Your task to perform on an android device: Open Maps and search for coffee Image 0: 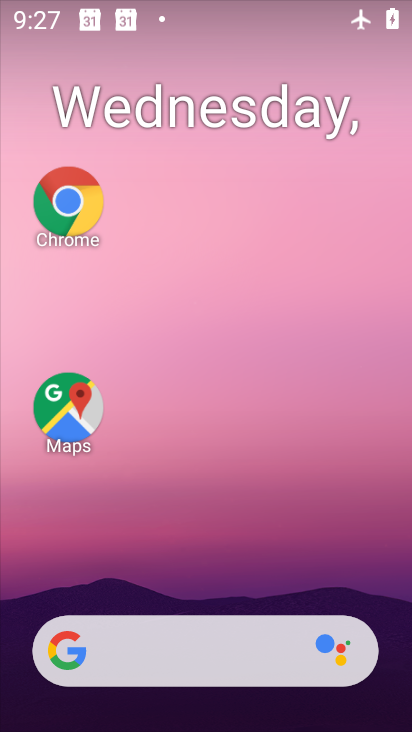
Step 0: click (83, 414)
Your task to perform on an android device: Open Maps and search for coffee Image 1: 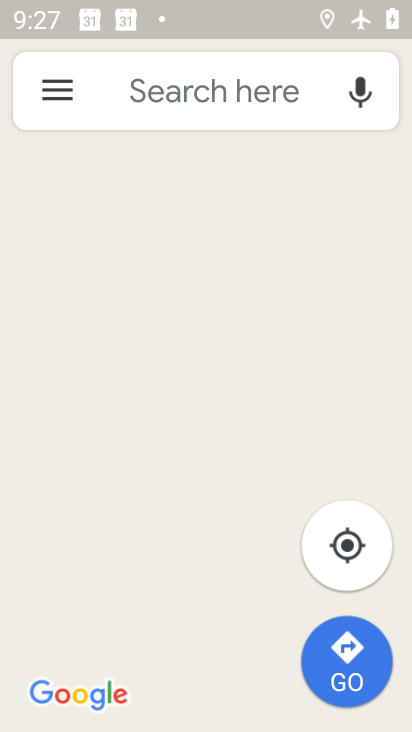
Step 1: click (165, 118)
Your task to perform on an android device: Open Maps and search for coffee Image 2: 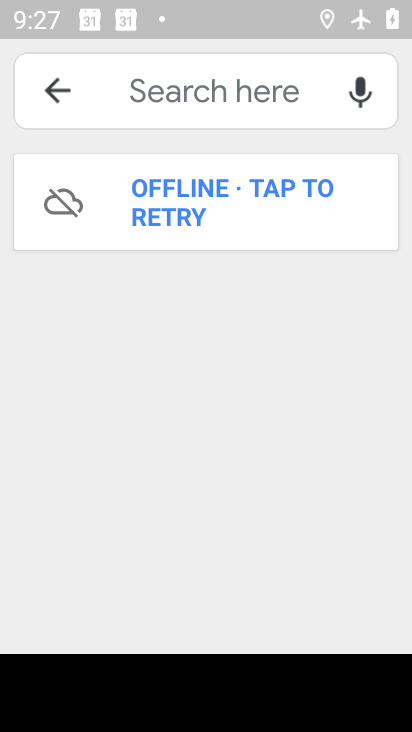
Step 2: type "coffee"
Your task to perform on an android device: Open Maps and search for coffee Image 3: 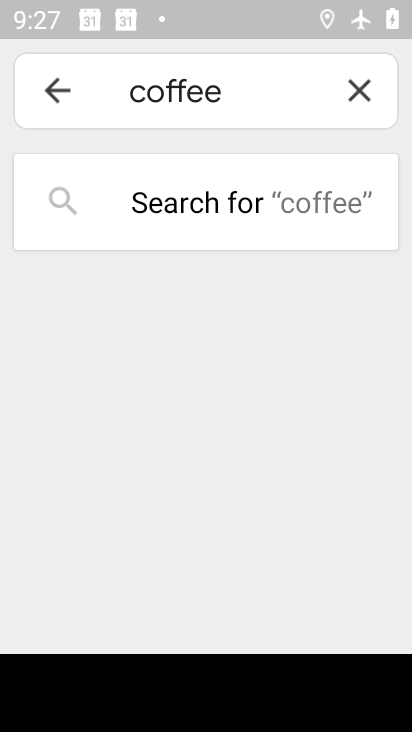
Step 3: task complete